Your task to perform on an android device: Find coffee shops on Maps Image 0: 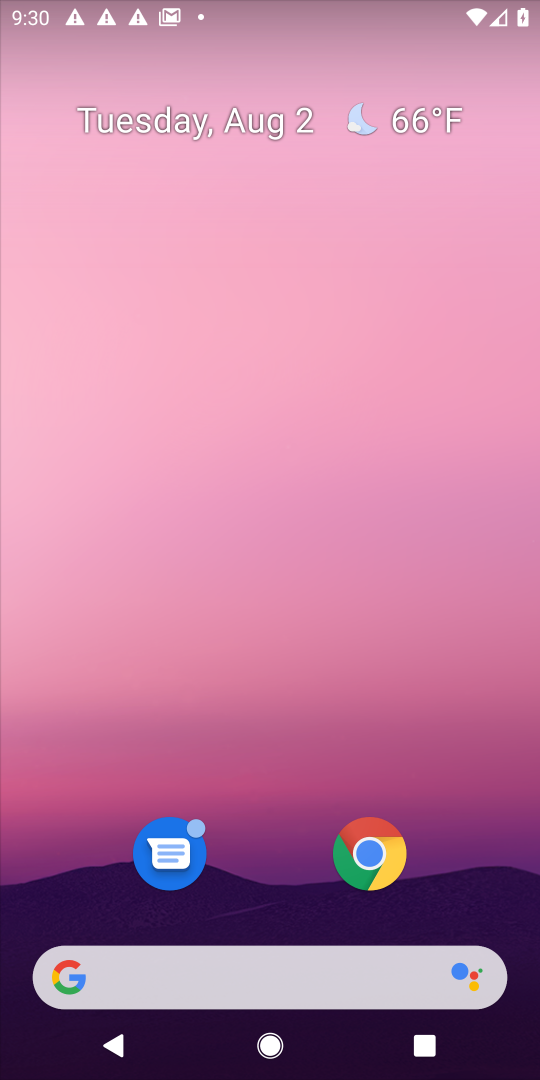
Step 0: drag from (272, 898) to (243, 972)
Your task to perform on an android device: Find coffee shops on Maps Image 1: 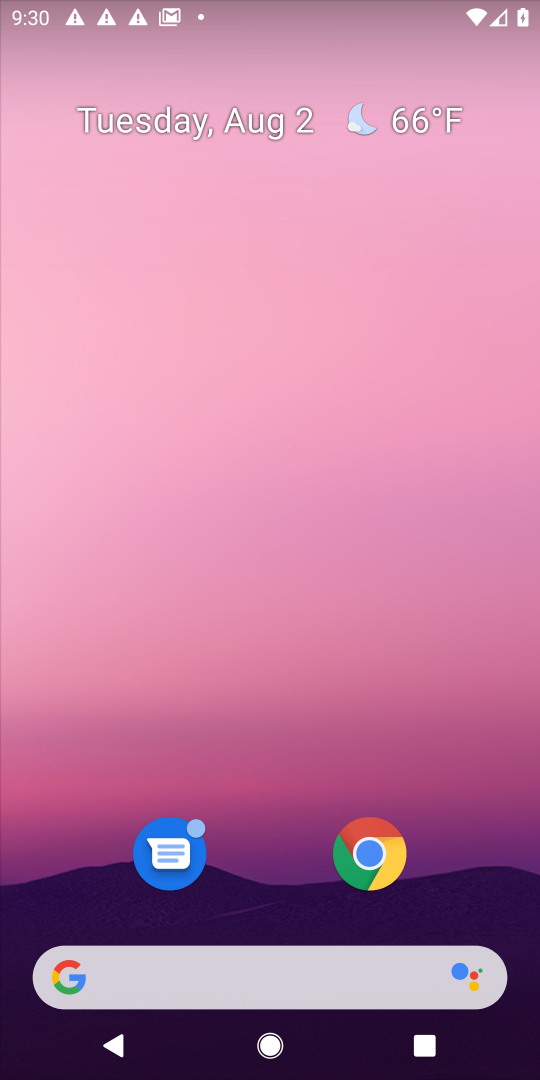
Step 1: drag from (261, 932) to (203, 38)
Your task to perform on an android device: Find coffee shops on Maps Image 2: 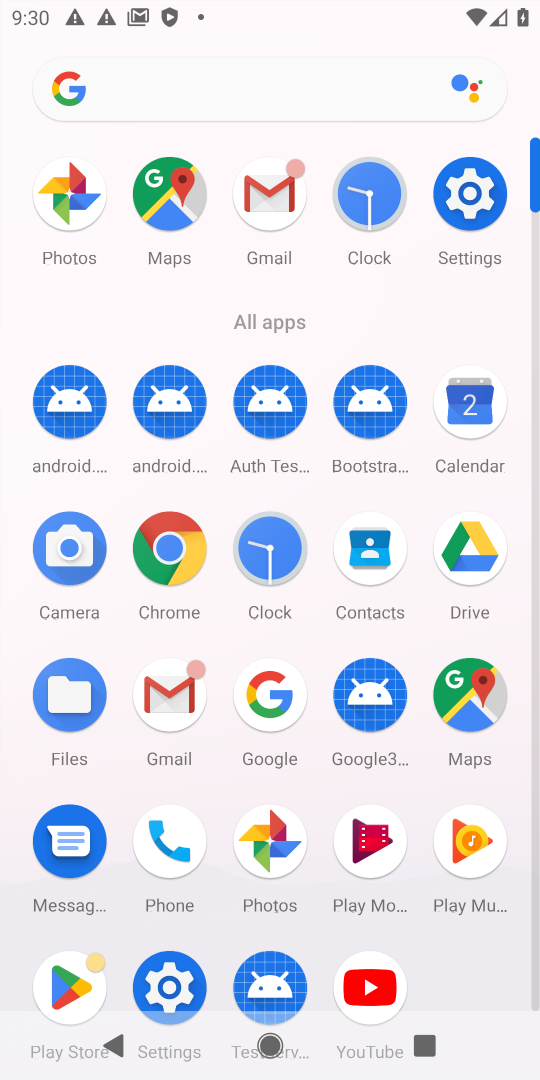
Step 2: click (474, 715)
Your task to perform on an android device: Find coffee shops on Maps Image 3: 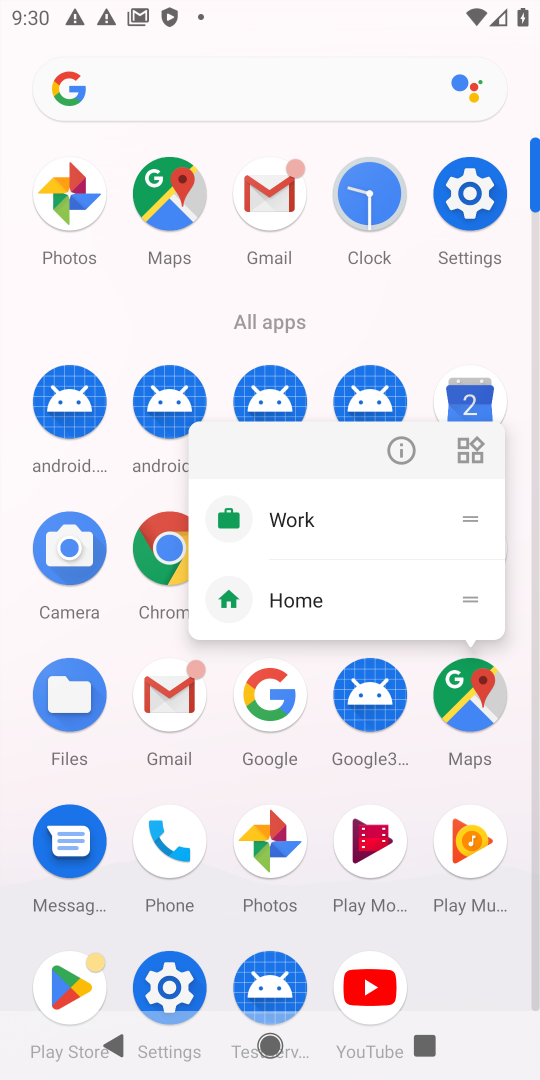
Step 3: click (461, 731)
Your task to perform on an android device: Find coffee shops on Maps Image 4: 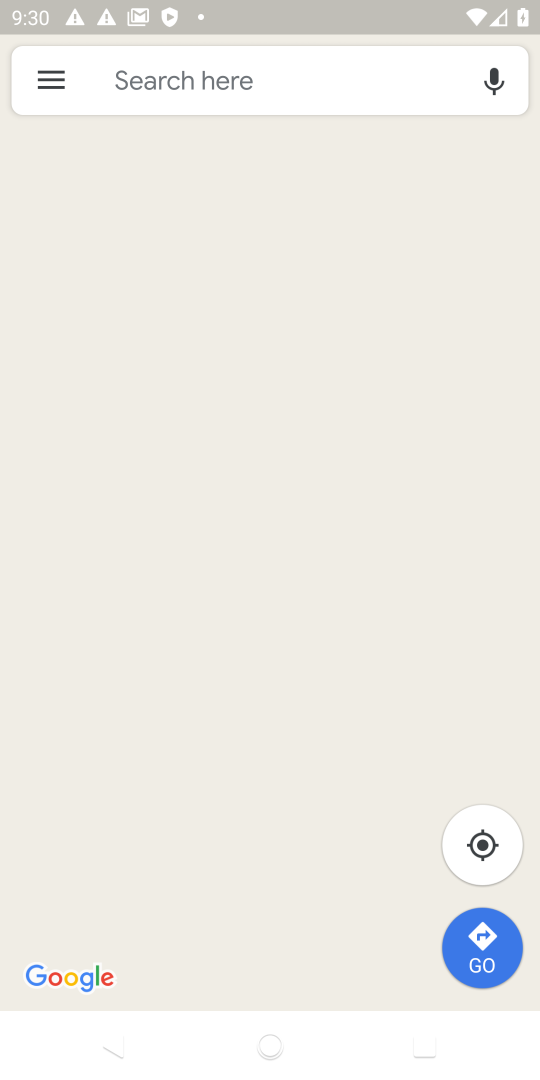
Step 4: click (265, 55)
Your task to perform on an android device: Find coffee shops on Maps Image 5: 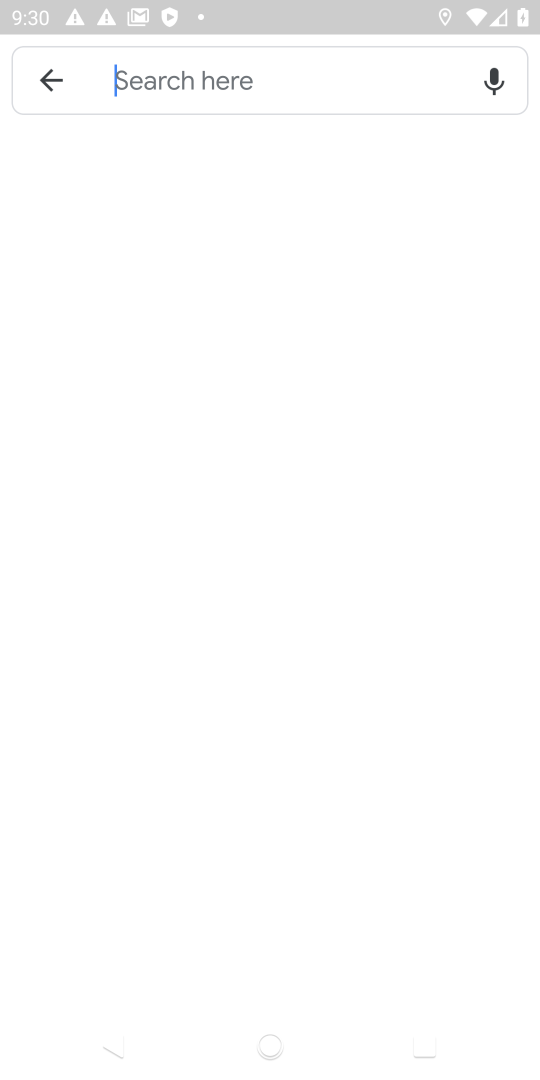
Step 5: click (183, 76)
Your task to perform on an android device: Find coffee shops on Maps Image 6: 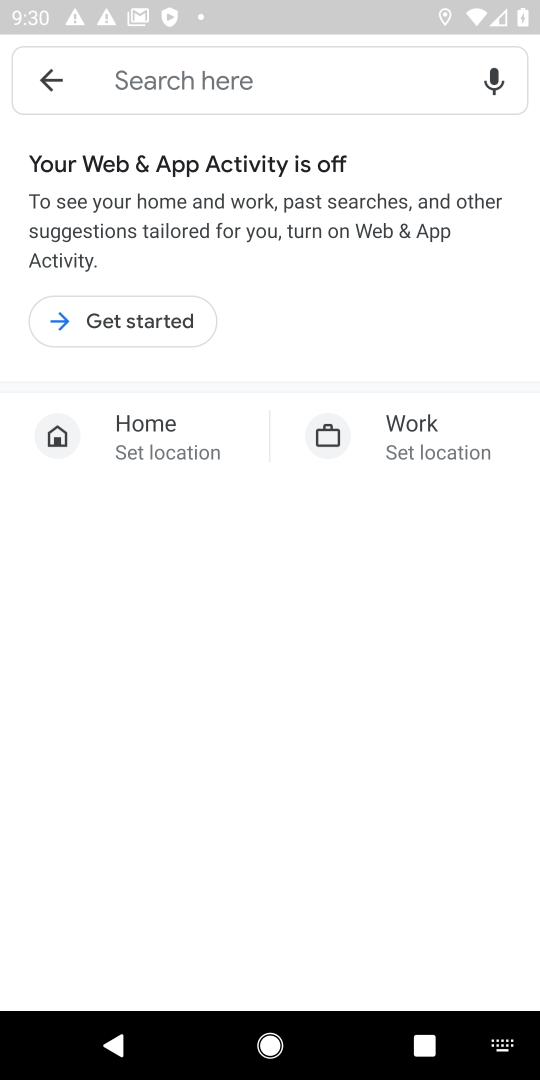
Step 6: type "coffee"
Your task to perform on an android device: Find coffee shops on Maps Image 7: 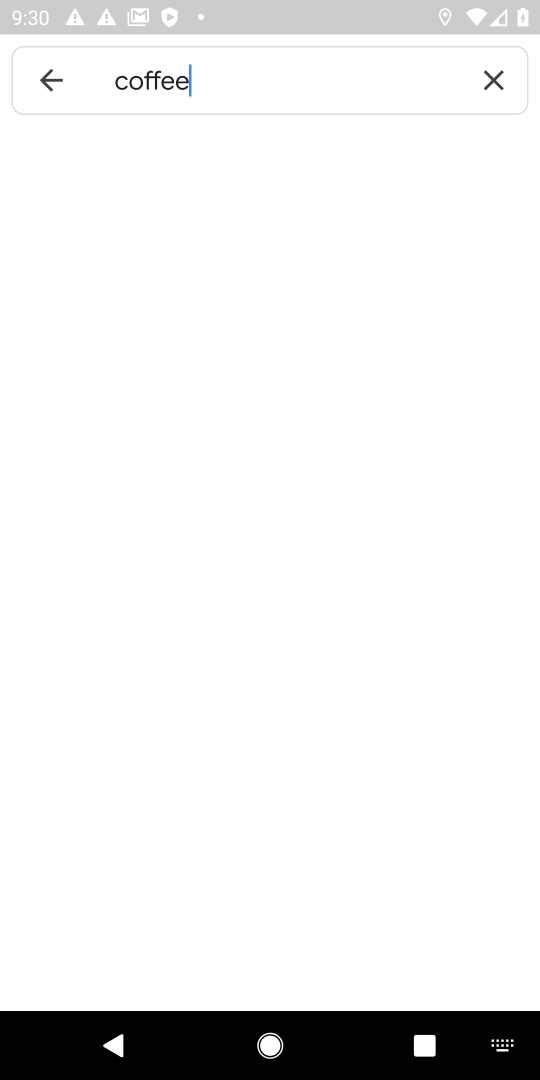
Step 7: type ""
Your task to perform on an android device: Find coffee shops on Maps Image 8: 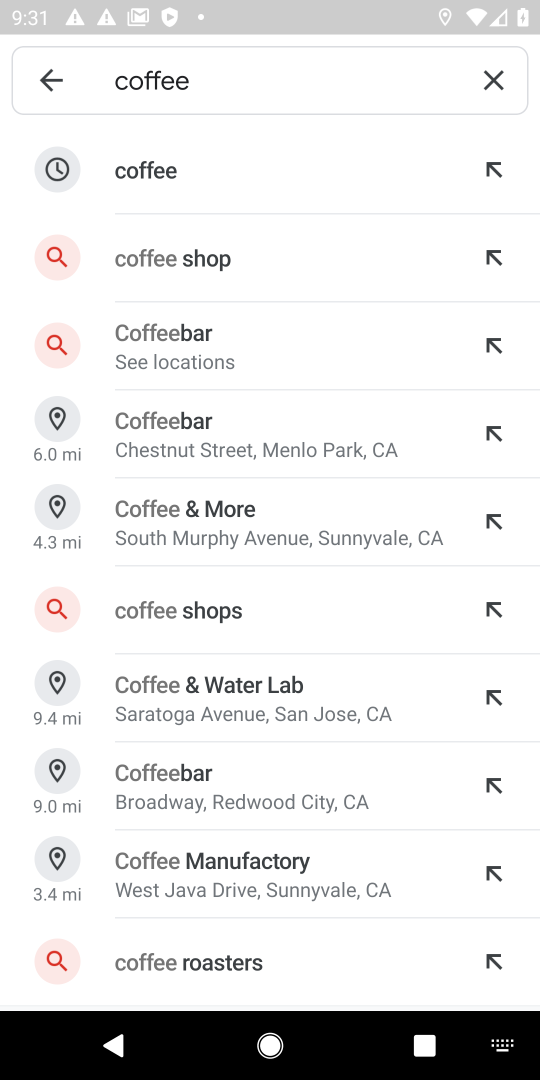
Step 8: click (190, 270)
Your task to perform on an android device: Find coffee shops on Maps Image 9: 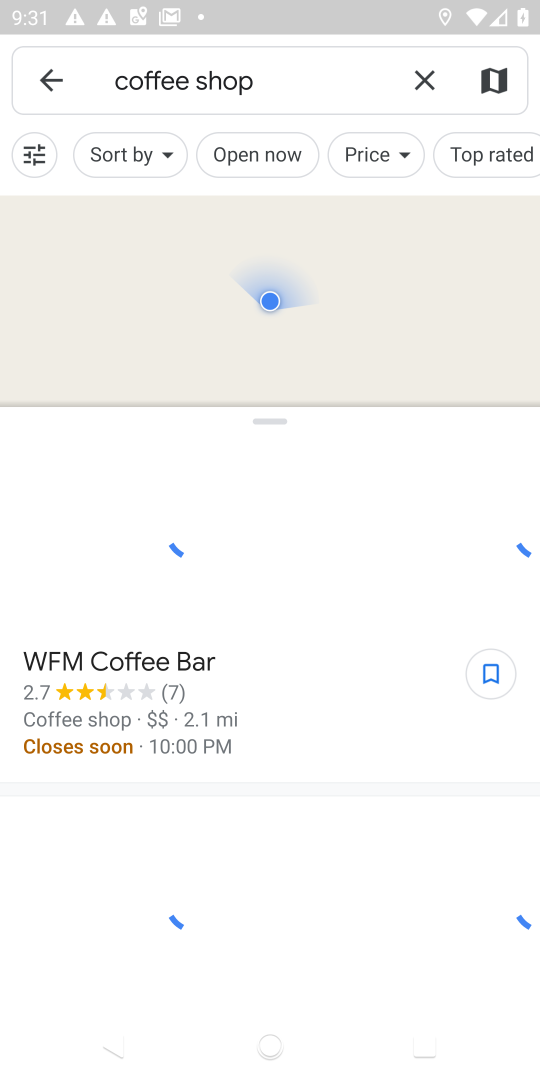
Step 9: task complete